Your task to perform on an android device: Go to network settings Image 0: 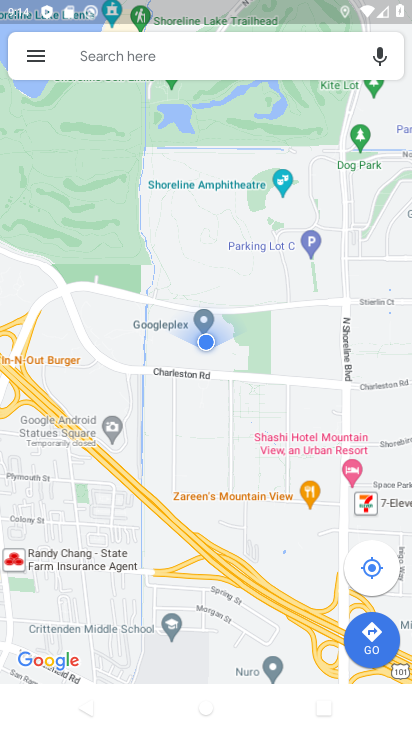
Step 0: press home button
Your task to perform on an android device: Go to network settings Image 1: 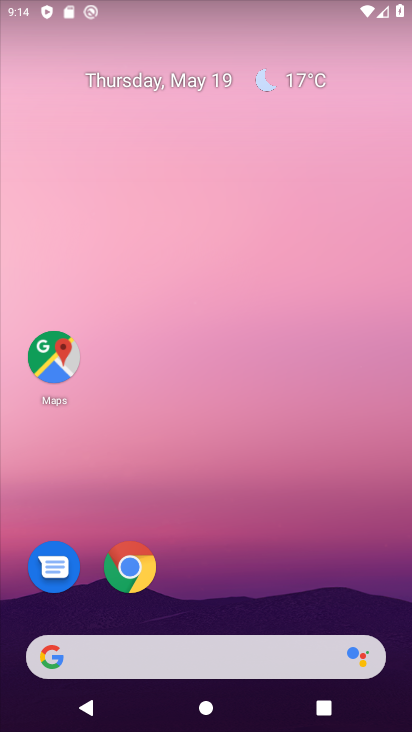
Step 1: drag from (326, 605) to (242, 0)
Your task to perform on an android device: Go to network settings Image 2: 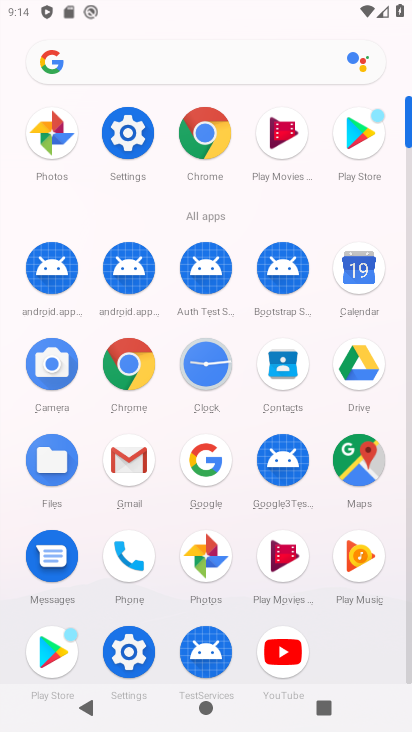
Step 2: click (137, 641)
Your task to perform on an android device: Go to network settings Image 3: 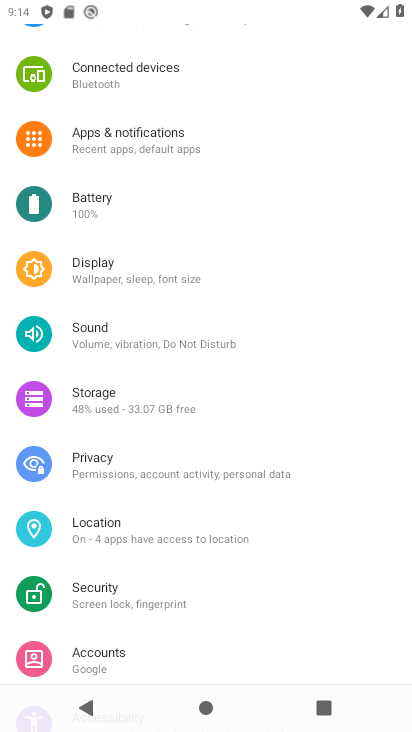
Step 3: drag from (179, 151) to (219, 270)
Your task to perform on an android device: Go to network settings Image 4: 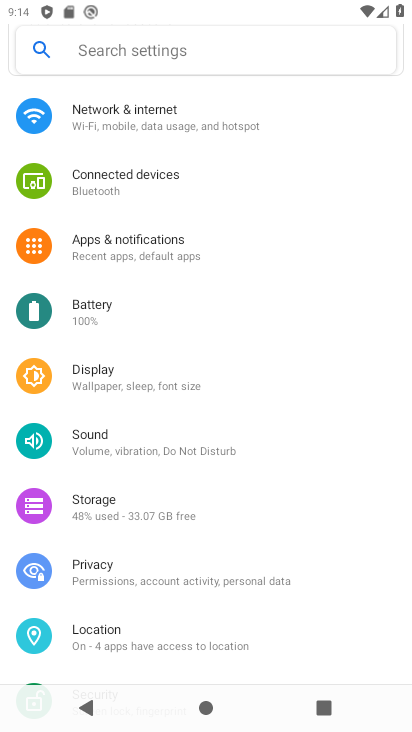
Step 4: click (142, 115)
Your task to perform on an android device: Go to network settings Image 5: 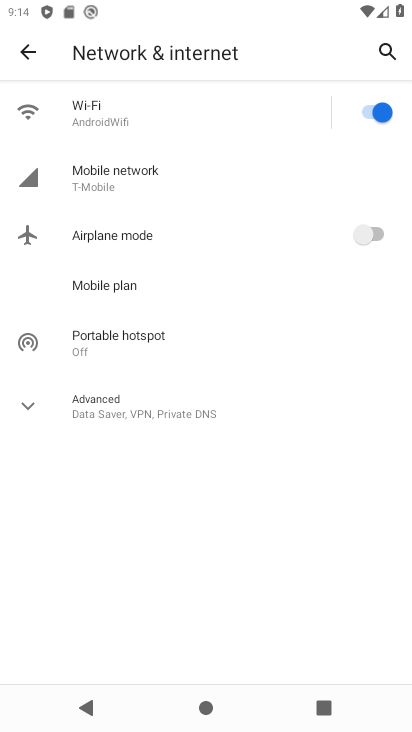
Step 5: task complete